Your task to perform on an android device: change the clock display to show seconds Image 0: 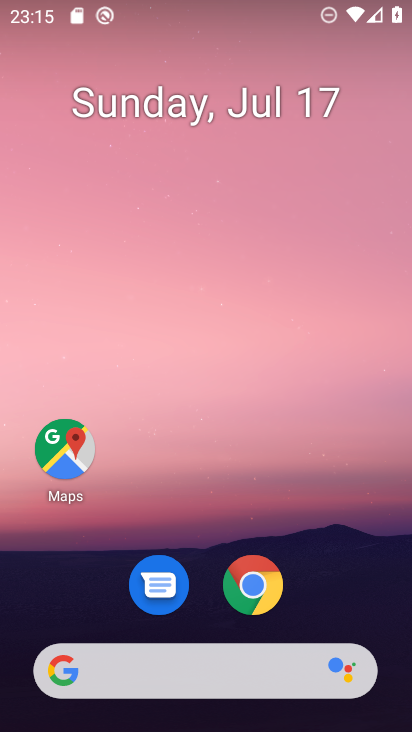
Step 0: press home button
Your task to perform on an android device: change the clock display to show seconds Image 1: 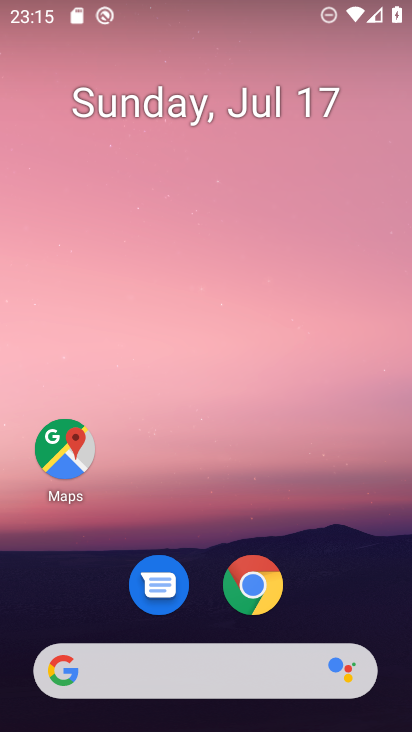
Step 1: drag from (198, 681) to (345, 195)
Your task to perform on an android device: change the clock display to show seconds Image 2: 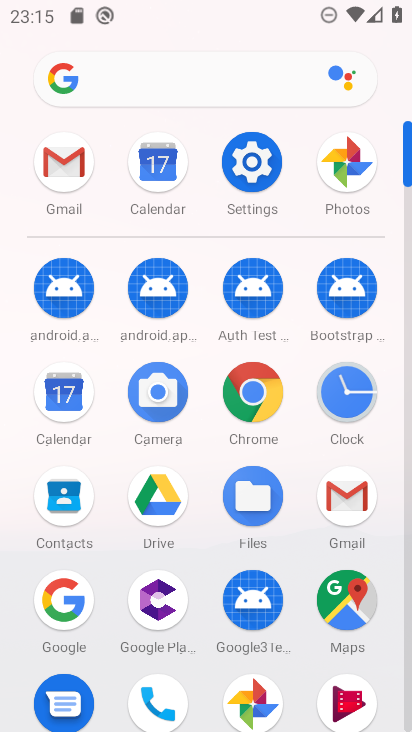
Step 2: click (338, 399)
Your task to perform on an android device: change the clock display to show seconds Image 3: 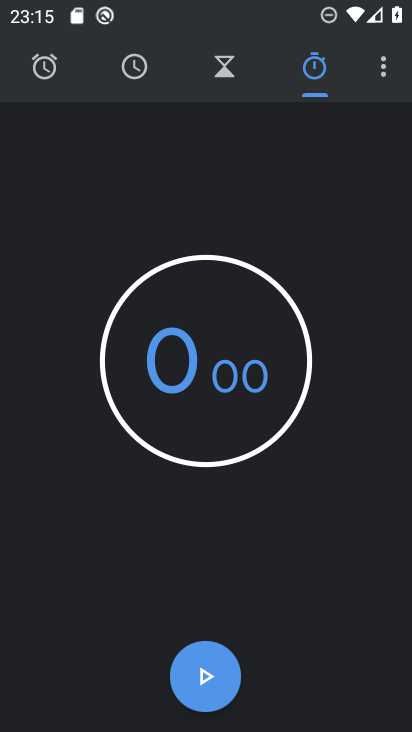
Step 3: click (376, 68)
Your task to perform on an android device: change the clock display to show seconds Image 4: 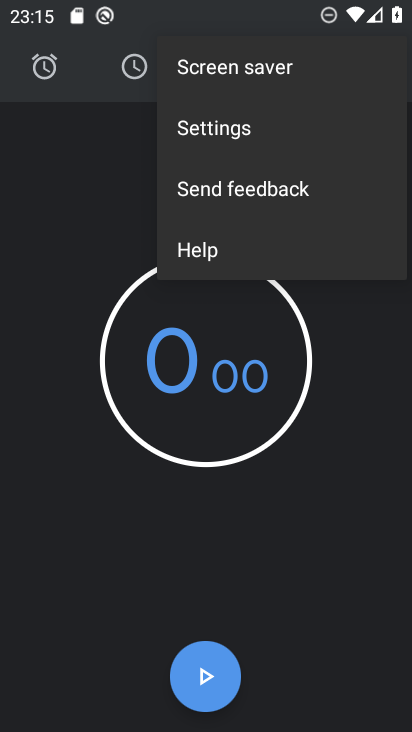
Step 4: click (209, 129)
Your task to perform on an android device: change the clock display to show seconds Image 5: 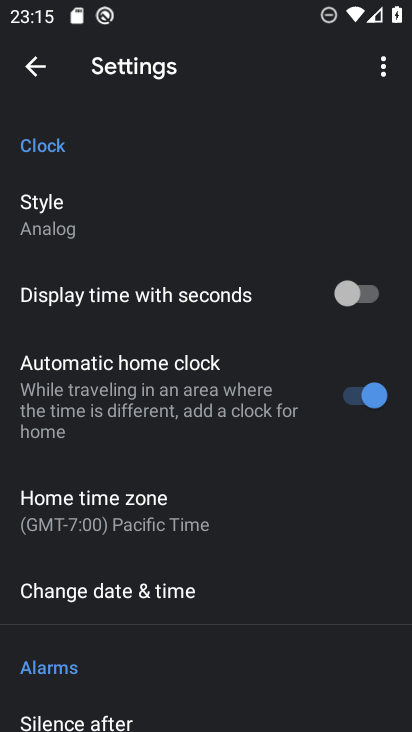
Step 5: click (357, 296)
Your task to perform on an android device: change the clock display to show seconds Image 6: 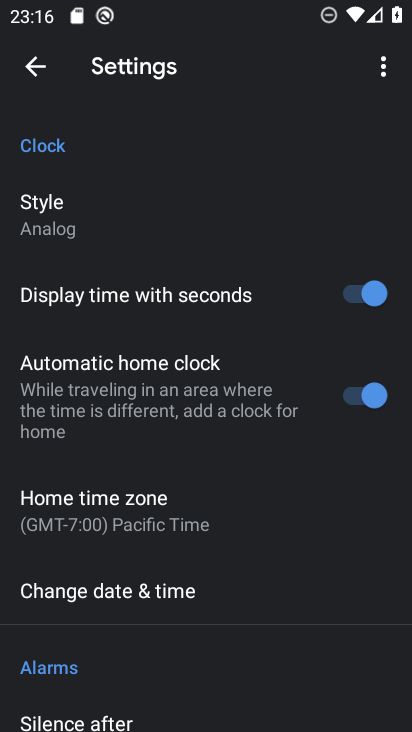
Step 6: task complete